Your task to perform on an android device: Open the calendar and show me this week's events Image 0: 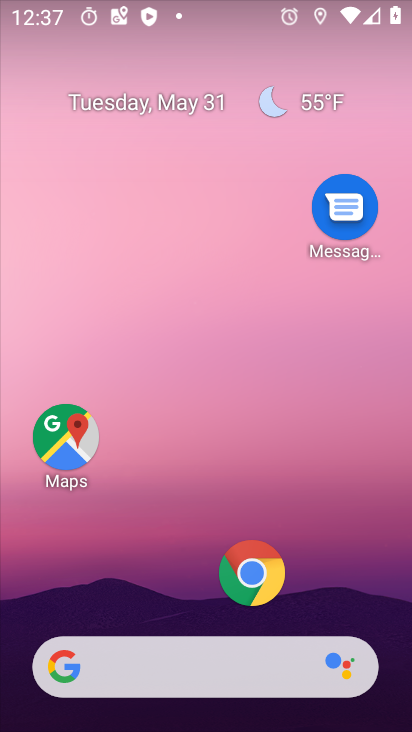
Step 0: drag from (162, 592) to (167, 34)
Your task to perform on an android device: Open the calendar and show me this week's events Image 1: 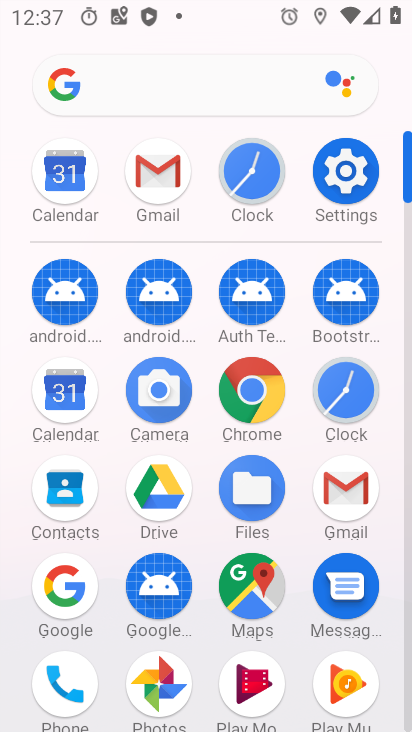
Step 1: click (63, 186)
Your task to perform on an android device: Open the calendar and show me this week's events Image 2: 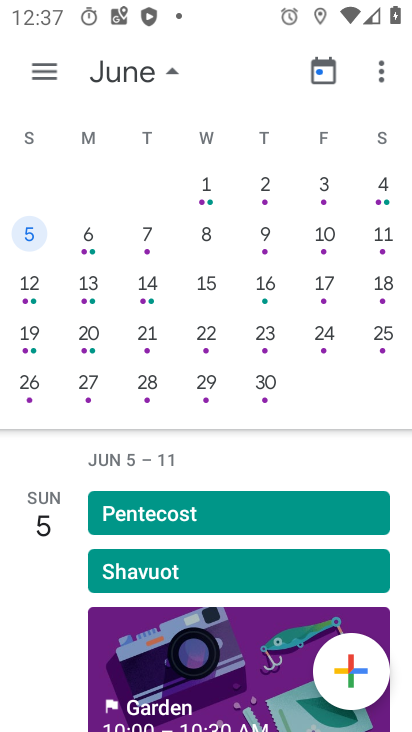
Step 2: drag from (51, 264) to (389, 339)
Your task to perform on an android device: Open the calendar and show me this week's events Image 3: 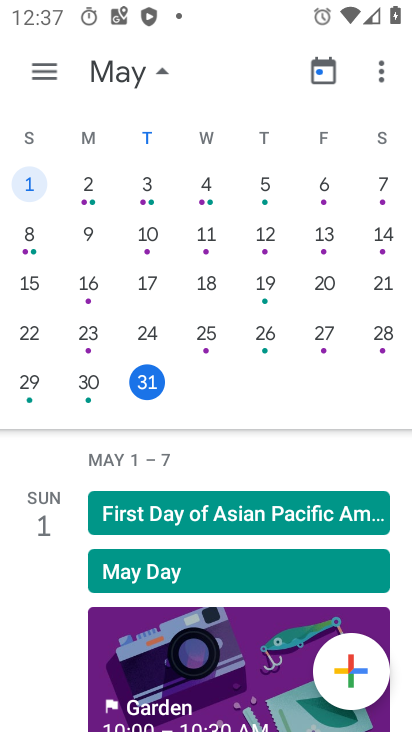
Step 3: click (133, 381)
Your task to perform on an android device: Open the calendar and show me this week's events Image 4: 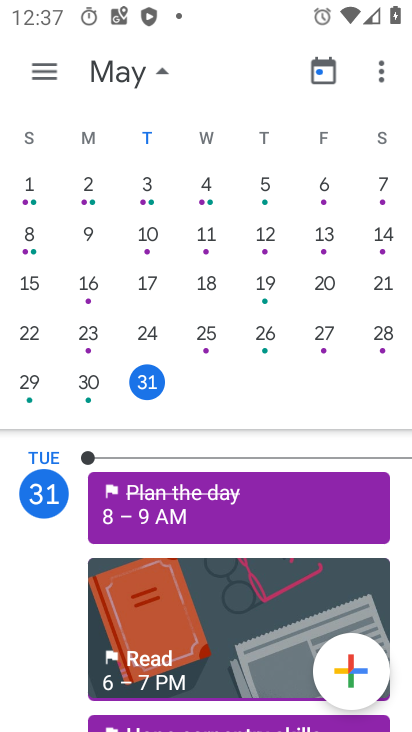
Step 4: task complete